Your task to perform on an android device: check the backup settings in the google photos Image 0: 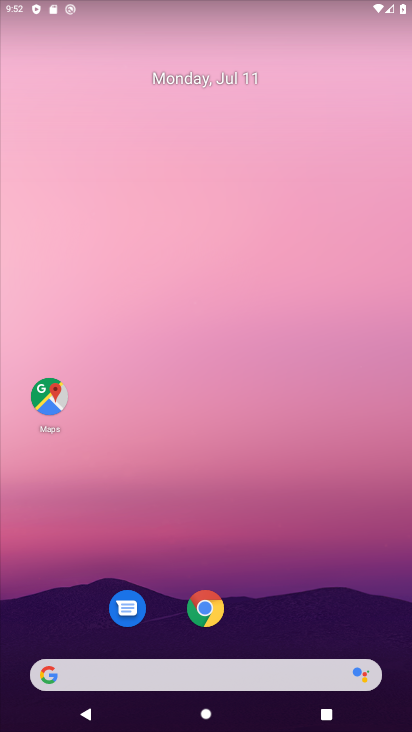
Step 0: drag from (71, 637) to (299, 73)
Your task to perform on an android device: check the backup settings in the google photos Image 1: 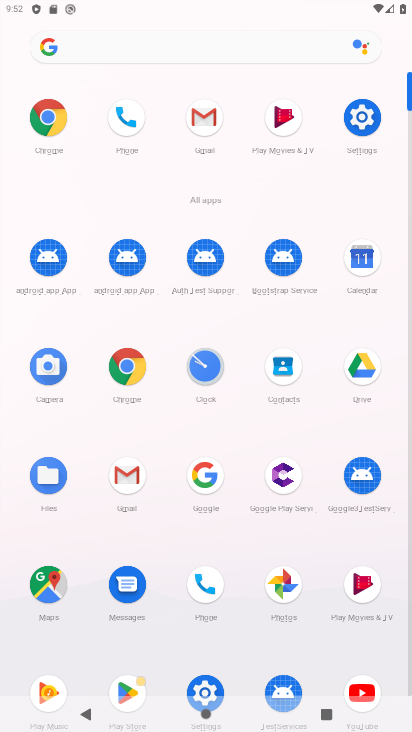
Step 1: click (278, 588)
Your task to perform on an android device: check the backup settings in the google photos Image 2: 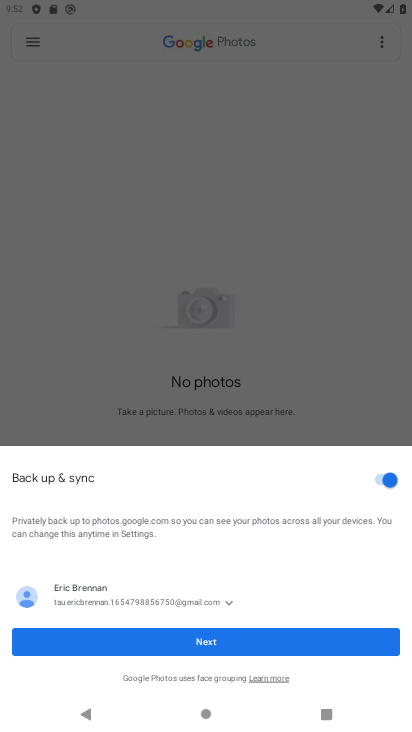
Step 2: click (121, 643)
Your task to perform on an android device: check the backup settings in the google photos Image 3: 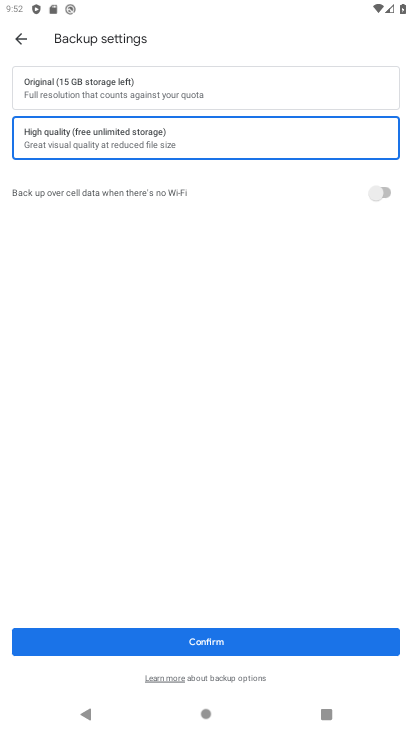
Step 3: click (108, 643)
Your task to perform on an android device: check the backup settings in the google photos Image 4: 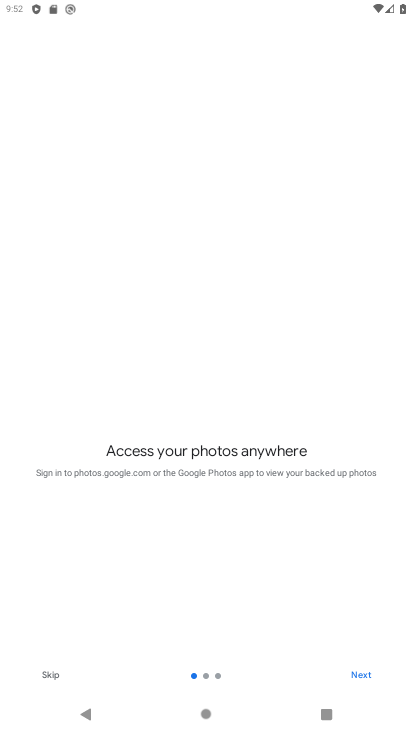
Step 4: click (364, 670)
Your task to perform on an android device: check the backup settings in the google photos Image 5: 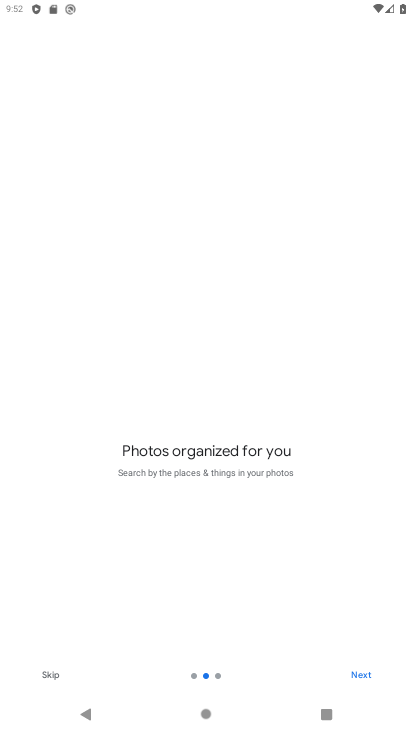
Step 5: click (355, 668)
Your task to perform on an android device: check the backup settings in the google photos Image 6: 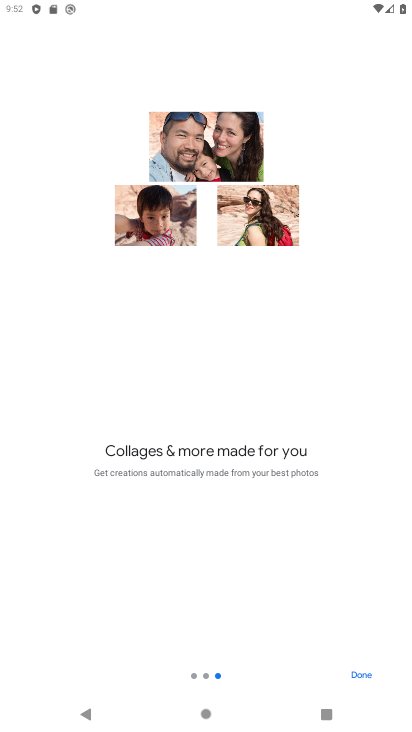
Step 6: click (353, 675)
Your task to perform on an android device: check the backup settings in the google photos Image 7: 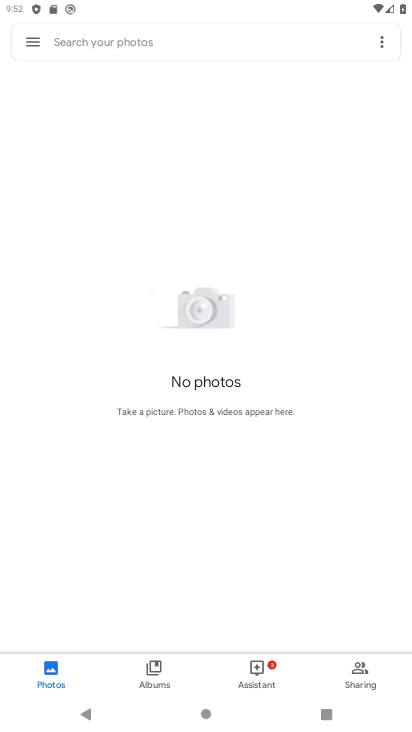
Step 7: click (21, 41)
Your task to perform on an android device: check the backup settings in the google photos Image 8: 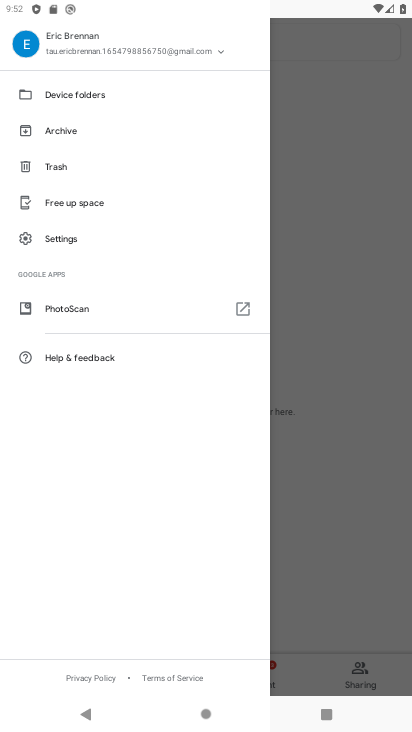
Step 8: click (69, 234)
Your task to perform on an android device: check the backup settings in the google photos Image 9: 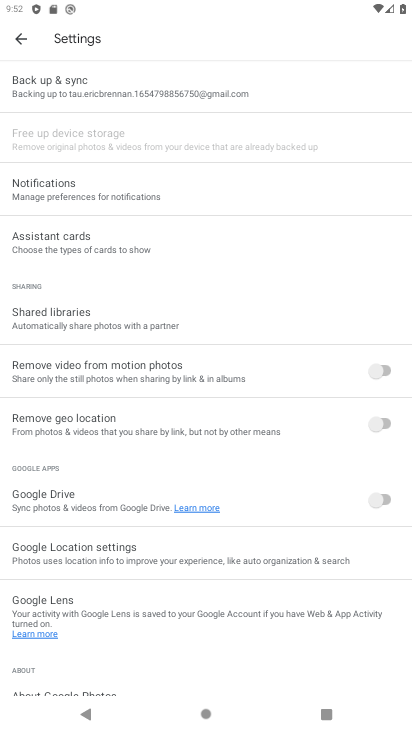
Step 9: click (77, 85)
Your task to perform on an android device: check the backup settings in the google photos Image 10: 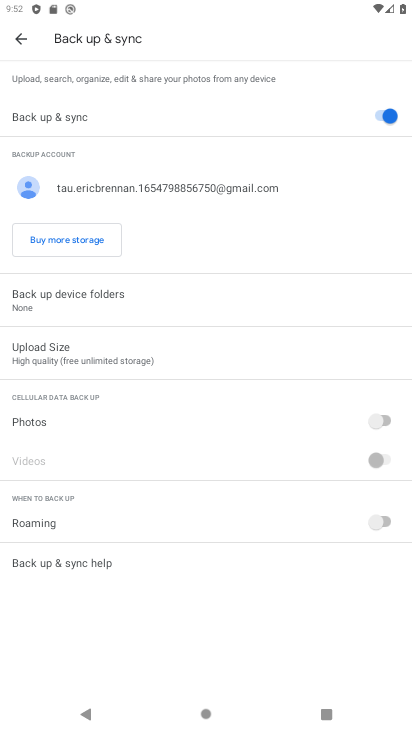
Step 10: task complete